Your task to perform on an android device: allow notifications from all sites in the chrome app Image 0: 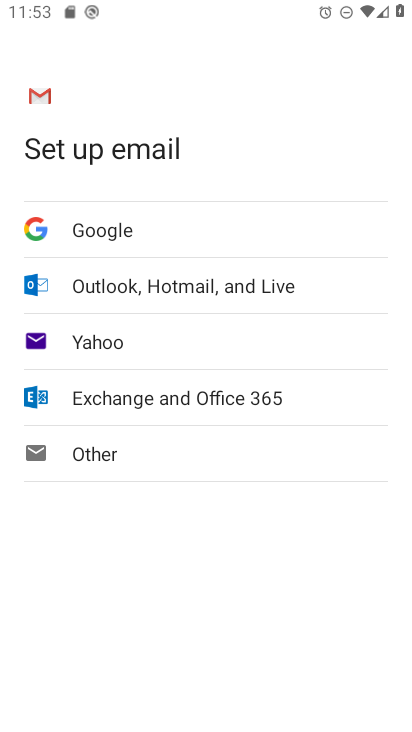
Step 0: press home button
Your task to perform on an android device: allow notifications from all sites in the chrome app Image 1: 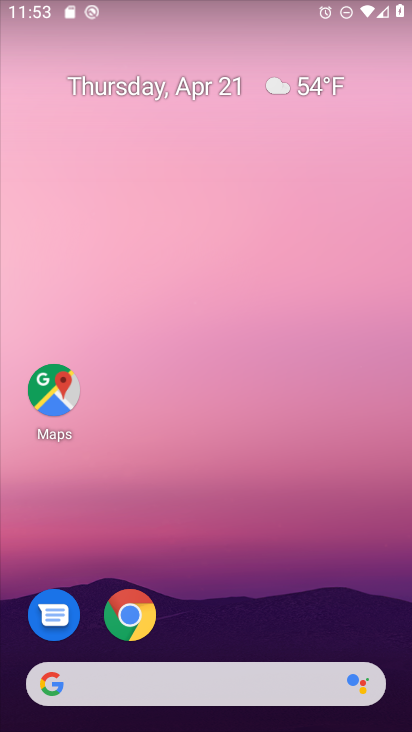
Step 1: click (129, 623)
Your task to perform on an android device: allow notifications from all sites in the chrome app Image 2: 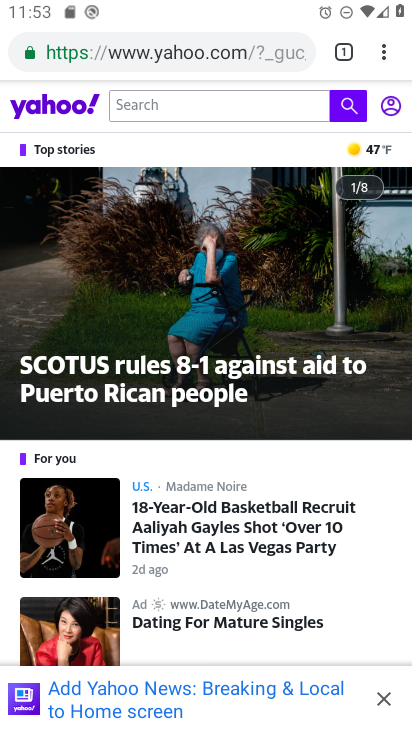
Step 2: click (379, 52)
Your task to perform on an android device: allow notifications from all sites in the chrome app Image 3: 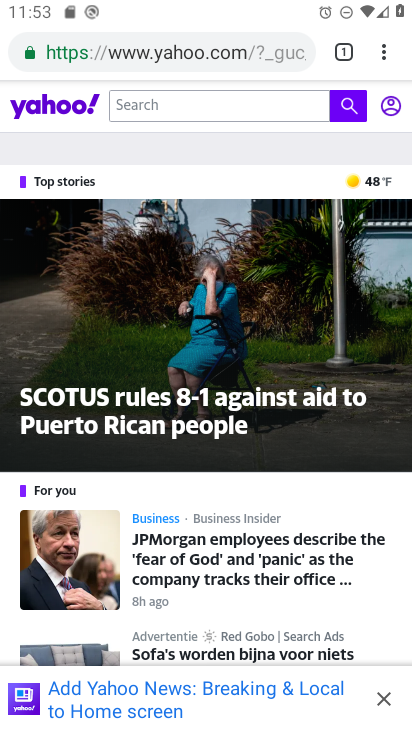
Step 3: click (390, 54)
Your task to perform on an android device: allow notifications from all sites in the chrome app Image 4: 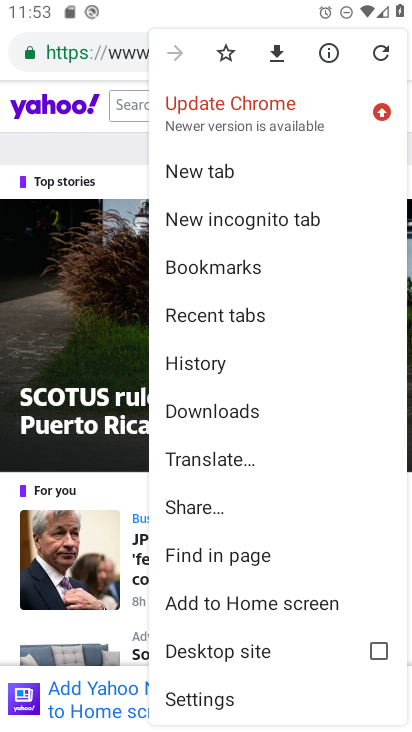
Step 4: click (249, 702)
Your task to perform on an android device: allow notifications from all sites in the chrome app Image 5: 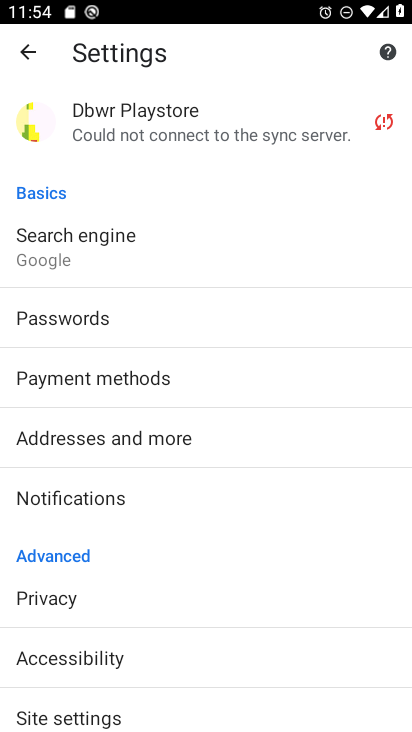
Step 5: drag from (140, 701) to (147, 592)
Your task to perform on an android device: allow notifications from all sites in the chrome app Image 6: 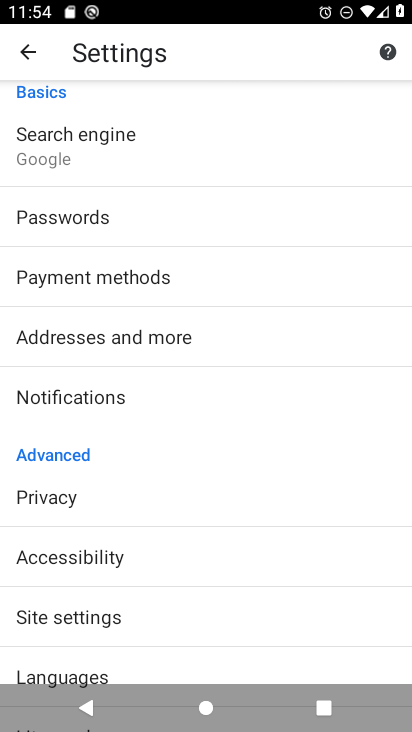
Step 6: click (124, 624)
Your task to perform on an android device: allow notifications from all sites in the chrome app Image 7: 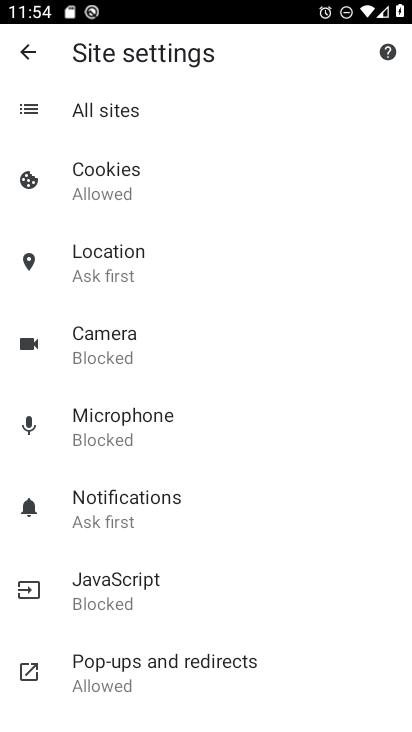
Step 7: click (143, 511)
Your task to perform on an android device: allow notifications from all sites in the chrome app Image 8: 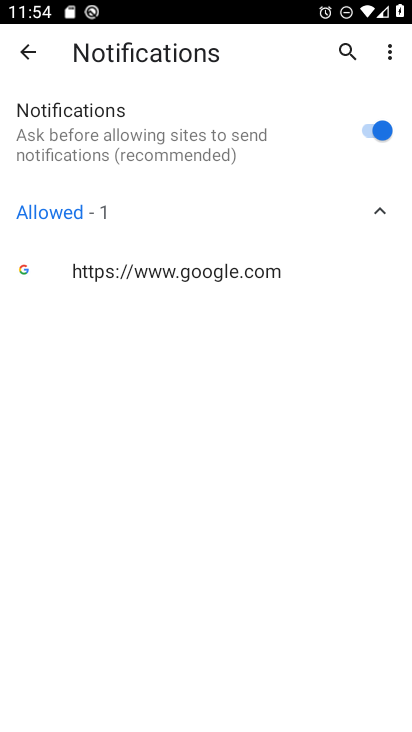
Step 8: task complete